Your task to perform on an android device: delete the emails in spam in the gmail app Image 0: 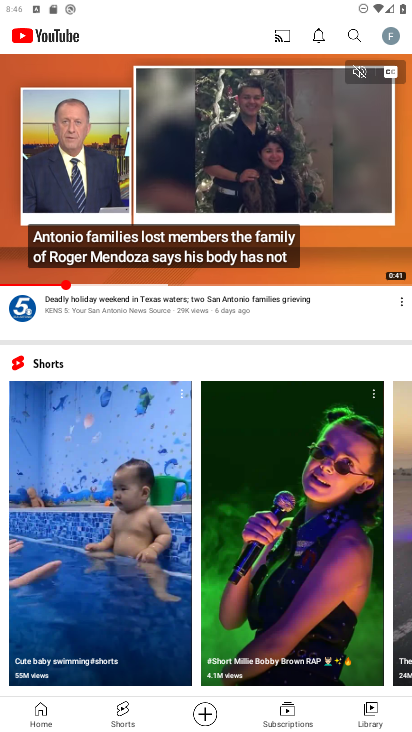
Step 0: press home button
Your task to perform on an android device: delete the emails in spam in the gmail app Image 1: 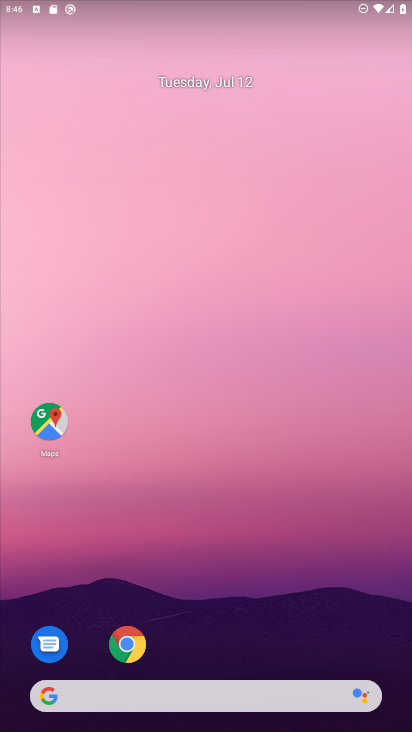
Step 1: drag from (377, 644) to (298, 32)
Your task to perform on an android device: delete the emails in spam in the gmail app Image 2: 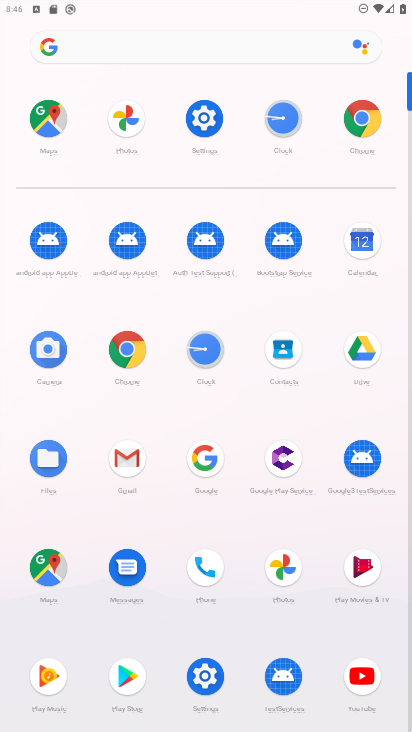
Step 2: click (123, 459)
Your task to perform on an android device: delete the emails in spam in the gmail app Image 3: 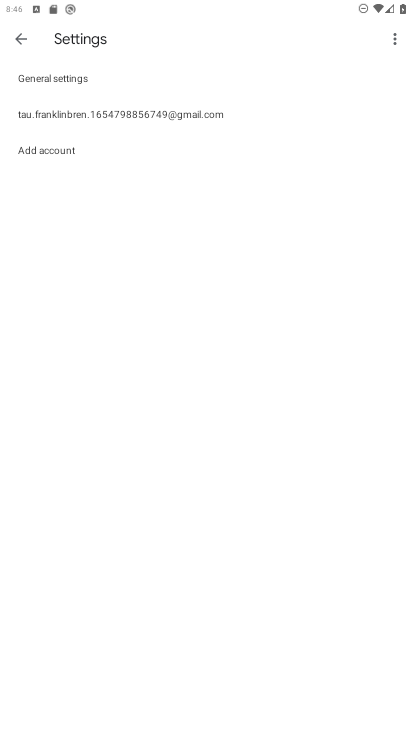
Step 3: press back button
Your task to perform on an android device: delete the emails in spam in the gmail app Image 4: 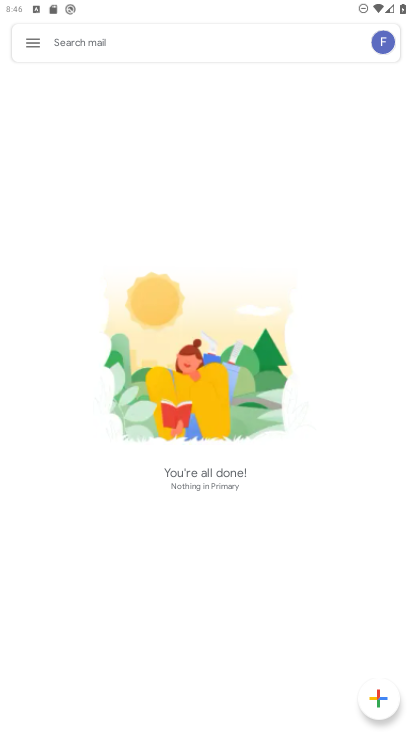
Step 4: click (33, 42)
Your task to perform on an android device: delete the emails in spam in the gmail app Image 5: 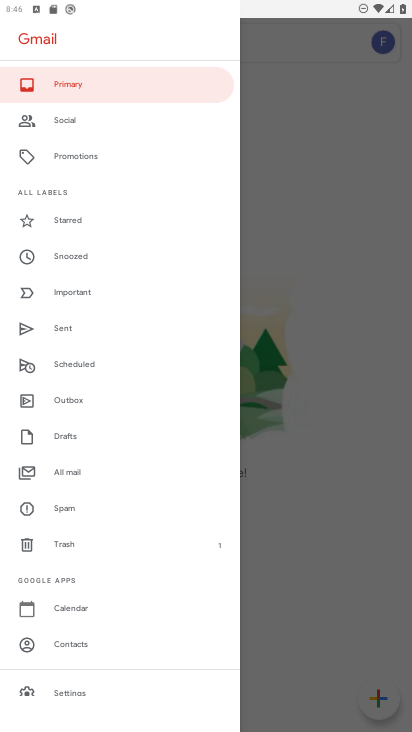
Step 5: click (61, 502)
Your task to perform on an android device: delete the emails in spam in the gmail app Image 6: 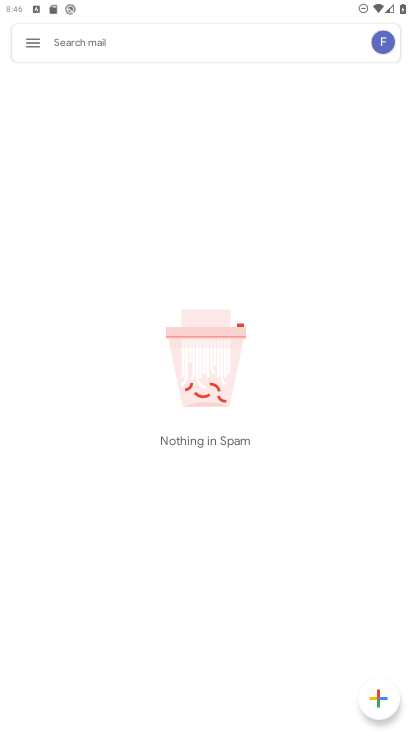
Step 6: task complete